Your task to perform on an android device: Do I have any events today? Image 0: 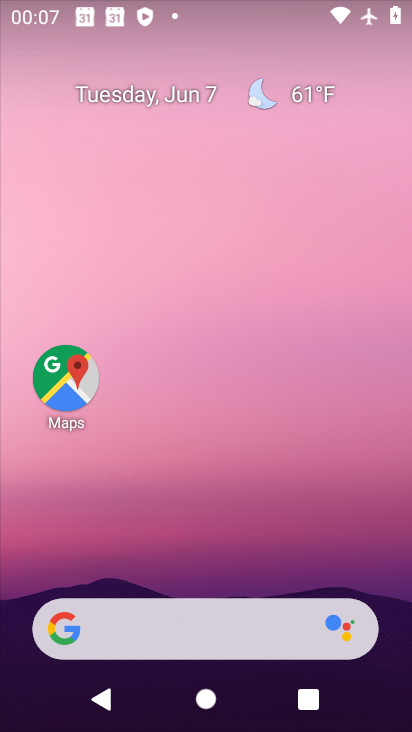
Step 0: drag from (201, 547) to (164, 115)
Your task to perform on an android device: Do I have any events today? Image 1: 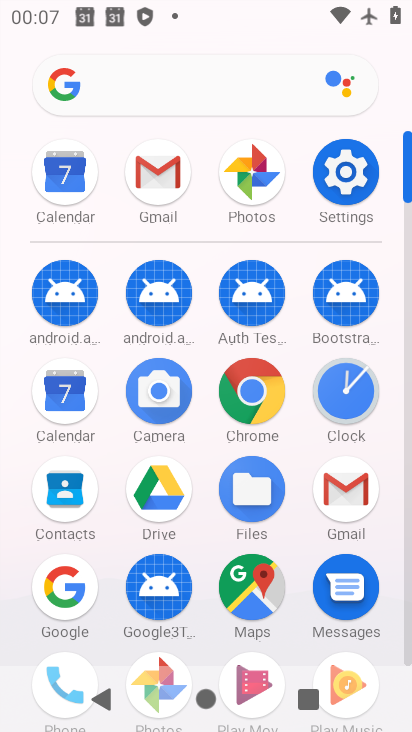
Step 1: click (74, 392)
Your task to perform on an android device: Do I have any events today? Image 2: 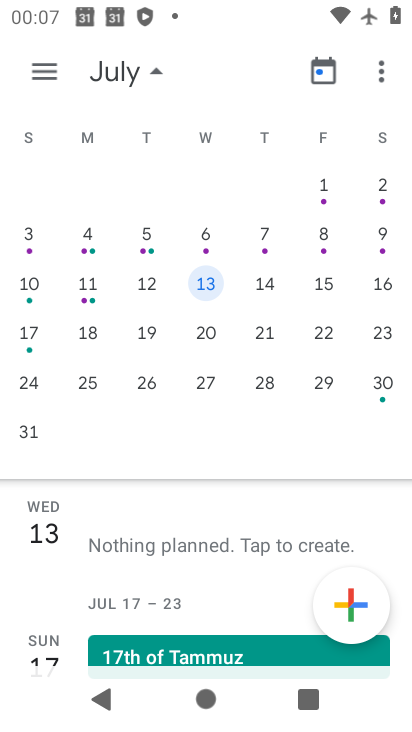
Step 2: drag from (64, 433) to (409, 376)
Your task to perform on an android device: Do I have any events today? Image 3: 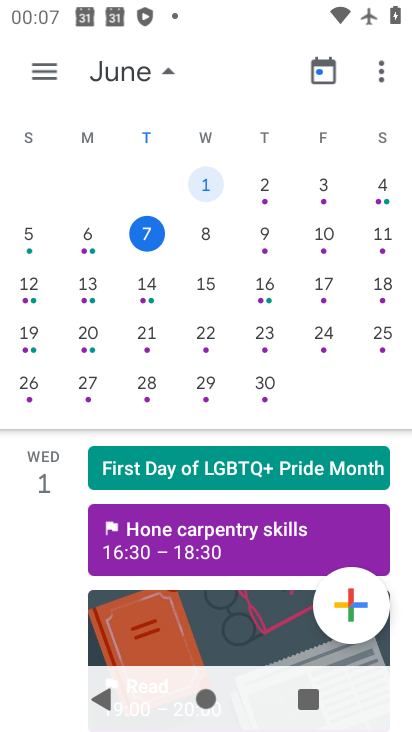
Step 3: click (149, 231)
Your task to perform on an android device: Do I have any events today? Image 4: 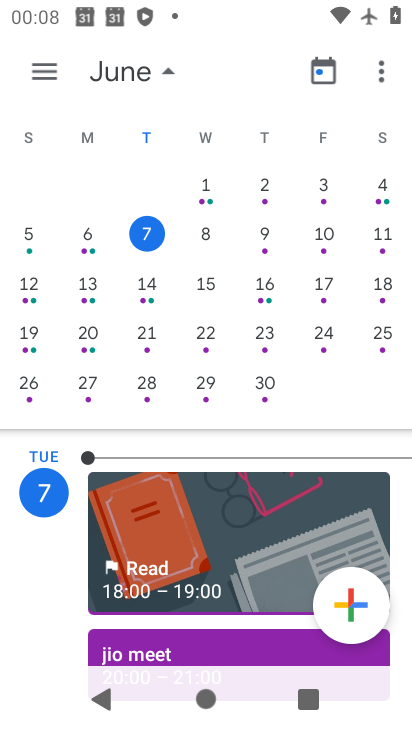
Step 4: task complete